Your task to perform on an android device: create a new album in the google photos Image 0: 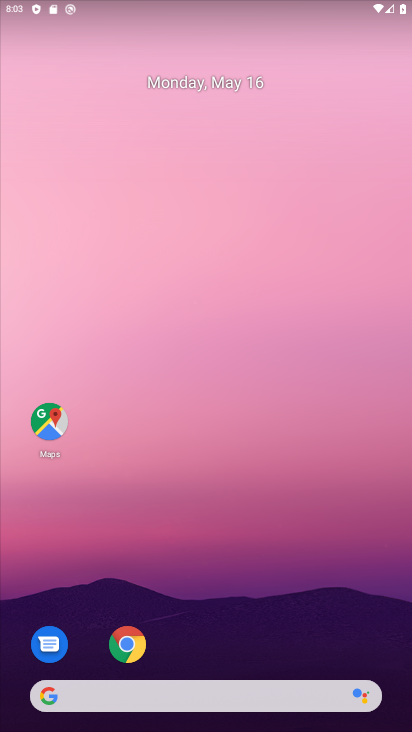
Step 0: drag from (348, 690) to (342, 54)
Your task to perform on an android device: create a new album in the google photos Image 1: 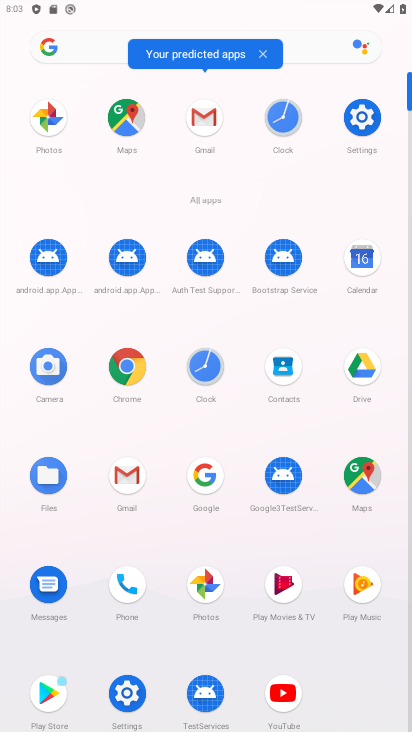
Step 1: click (201, 588)
Your task to perform on an android device: create a new album in the google photos Image 2: 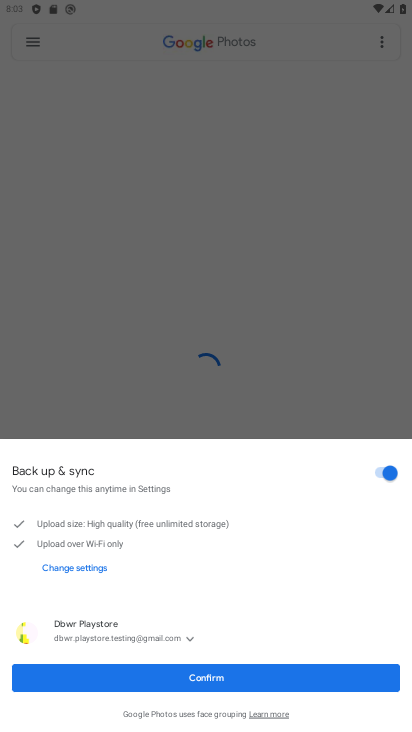
Step 2: click (223, 679)
Your task to perform on an android device: create a new album in the google photos Image 3: 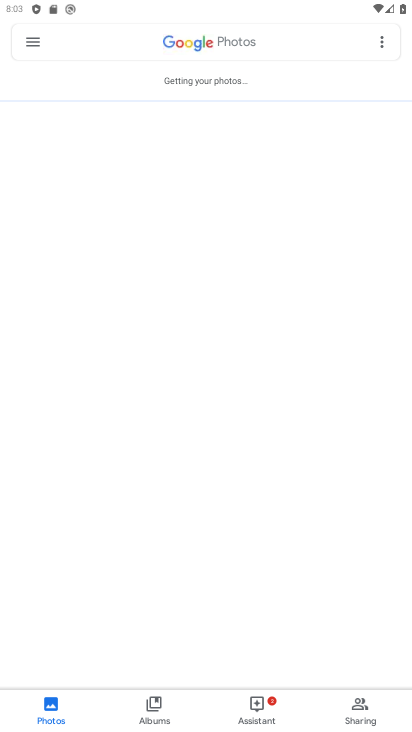
Step 3: click (157, 706)
Your task to perform on an android device: create a new album in the google photos Image 4: 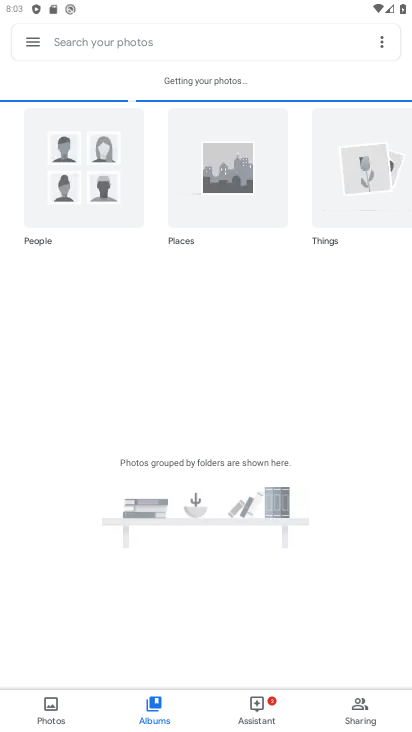
Step 4: drag from (194, 582) to (249, 199)
Your task to perform on an android device: create a new album in the google photos Image 5: 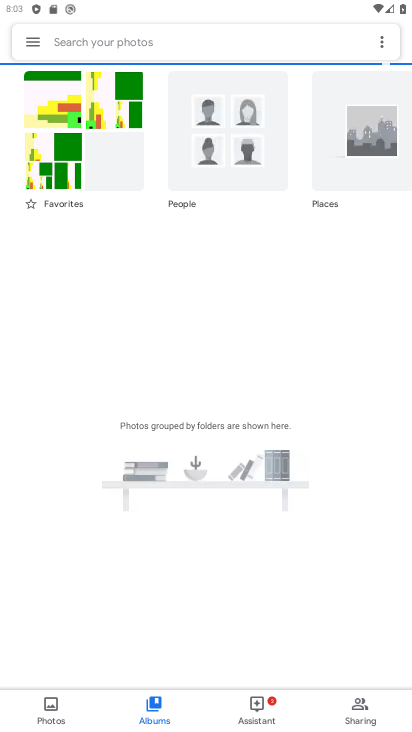
Step 5: drag from (335, 139) to (404, 308)
Your task to perform on an android device: create a new album in the google photos Image 6: 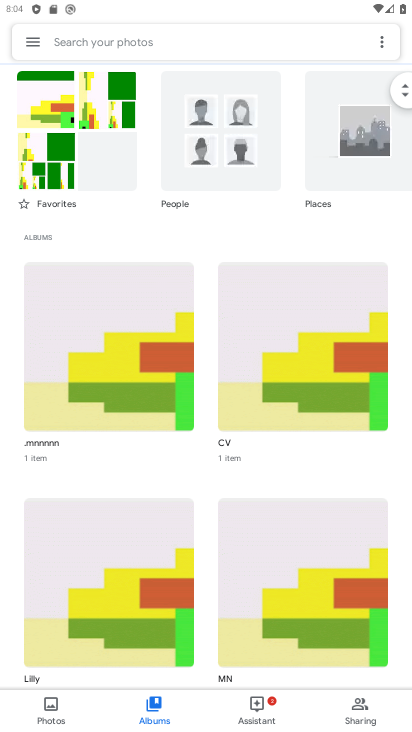
Step 6: click (374, 38)
Your task to perform on an android device: create a new album in the google photos Image 7: 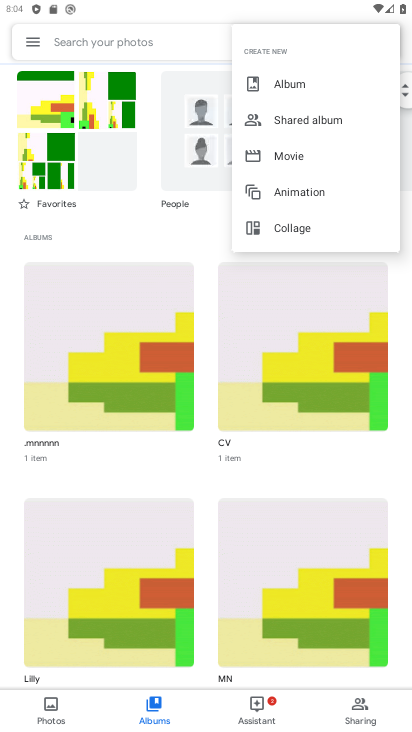
Step 7: click (279, 75)
Your task to perform on an android device: create a new album in the google photos Image 8: 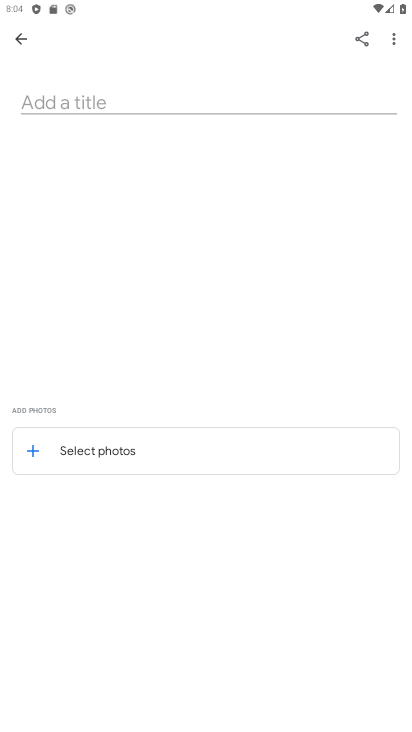
Step 8: click (216, 96)
Your task to perform on an android device: create a new album in the google photos Image 9: 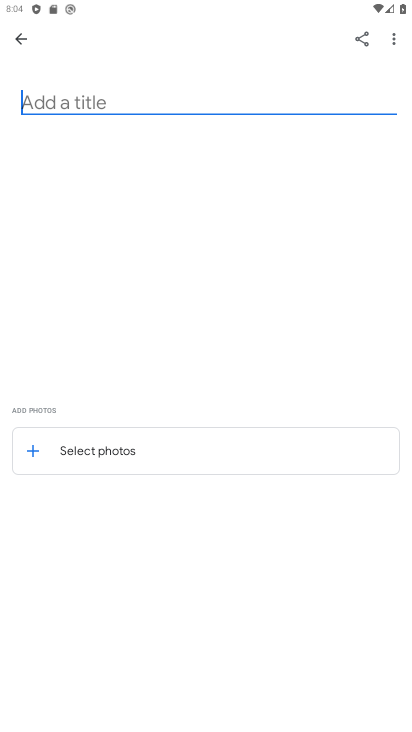
Step 9: click (216, 96)
Your task to perform on an android device: create a new album in the google photos Image 10: 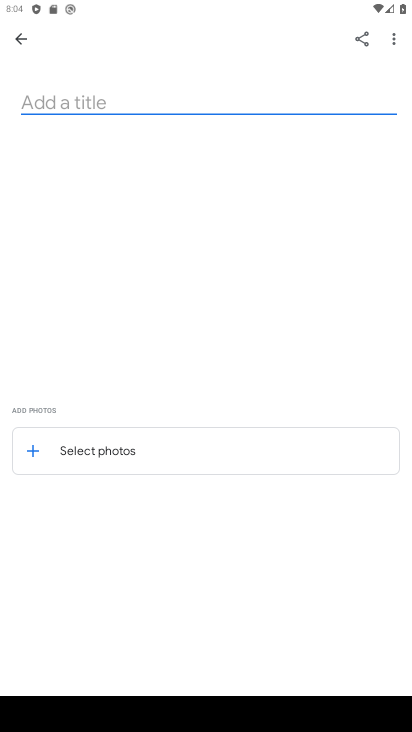
Step 10: type "jnjknkjn"
Your task to perform on an android device: create a new album in the google photos Image 11: 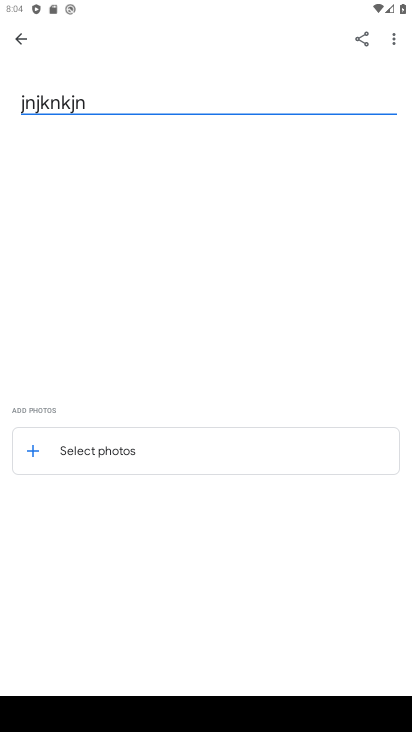
Step 11: click (30, 456)
Your task to perform on an android device: create a new album in the google photos Image 12: 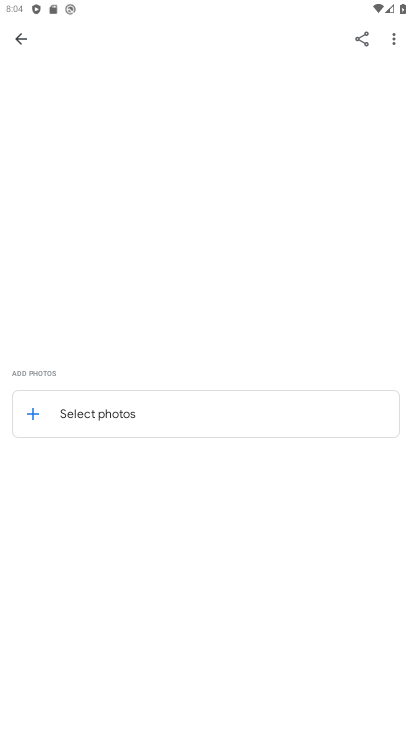
Step 12: click (35, 412)
Your task to perform on an android device: create a new album in the google photos Image 13: 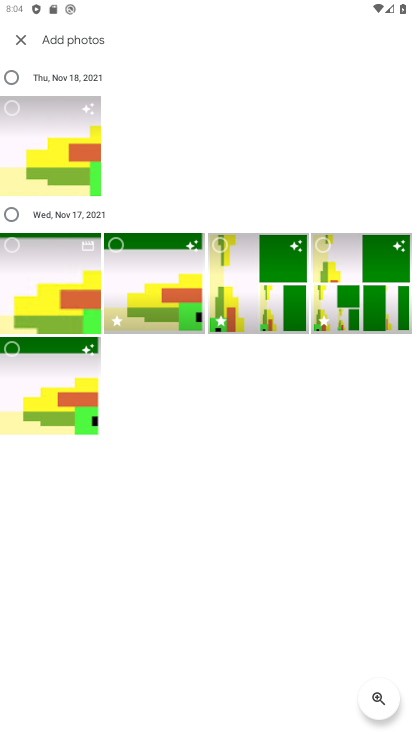
Step 13: click (51, 294)
Your task to perform on an android device: create a new album in the google photos Image 14: 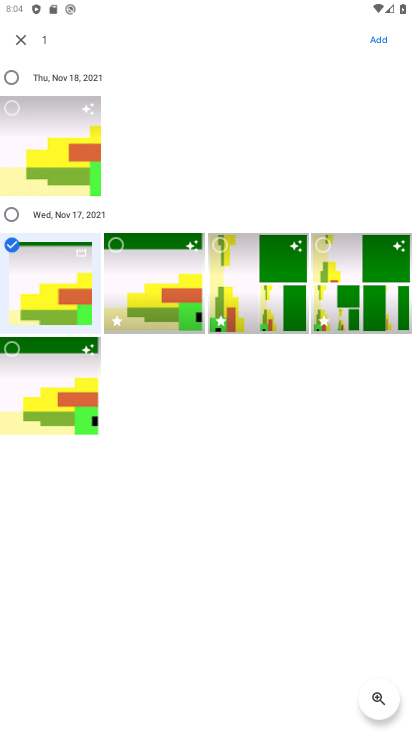
Step 14: click (380, 36)
Your task to perform on an android device: create a new album in the google photos Image 15: 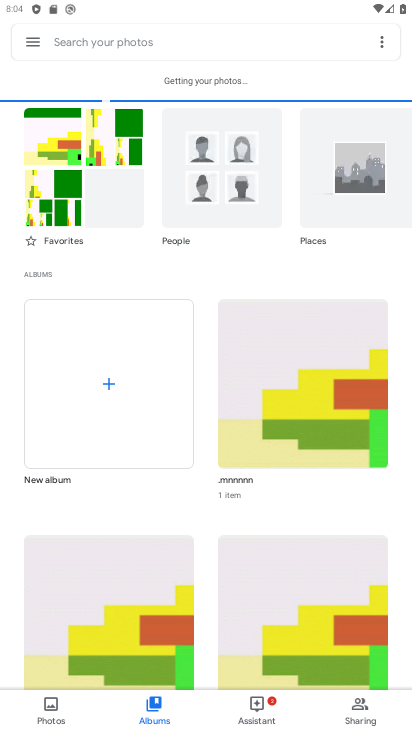
Step 15: task complete